Your task to perform on an android device: turn off javascript in the chrome app Image 0: 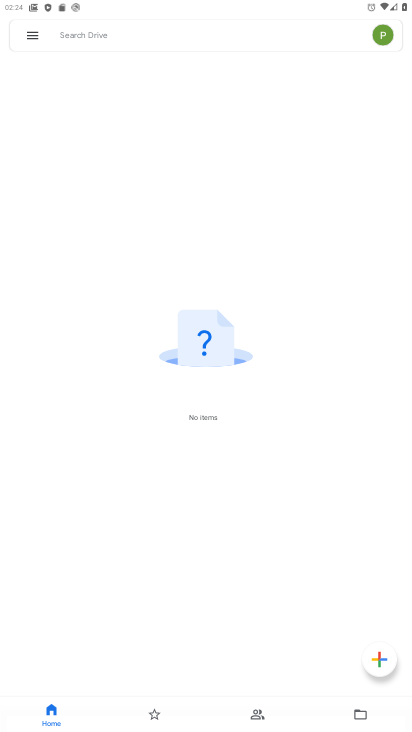
Step 0: press home button
Your task to perform on an android device: turn off javascript in the chrome app Image 1: 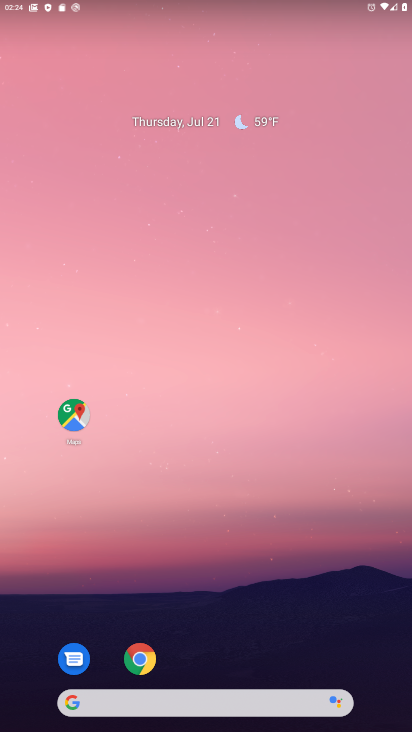
Step 1: drag from (276, 611) to (271, 91)
Your task to perform on an android device: turn off javascript in the chrome app Image 2: 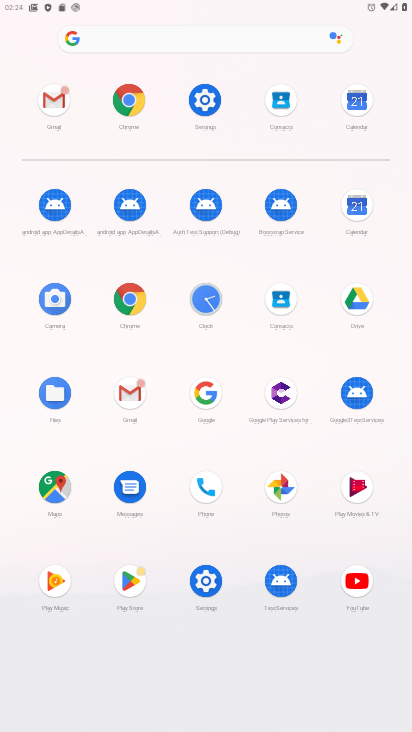
Step 2: click (127, 103)
Your task to perform on an android device: turn off javascript in the chrome app Image 3: 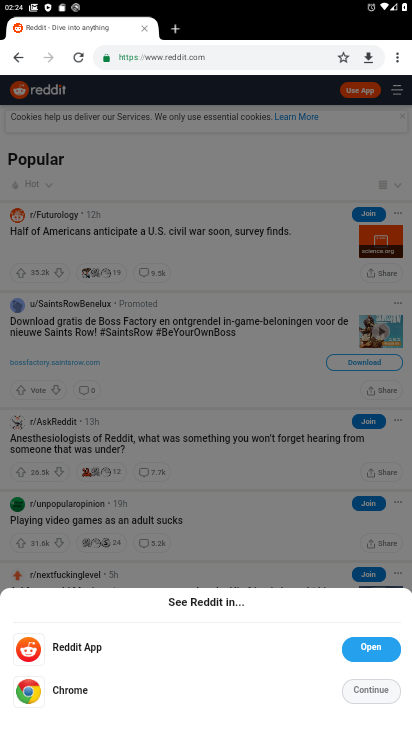
Step 3: drag from (396, 51) to (273, 388)
Your task to perform on an android device: turn off javascript in the chrome app Image 4: 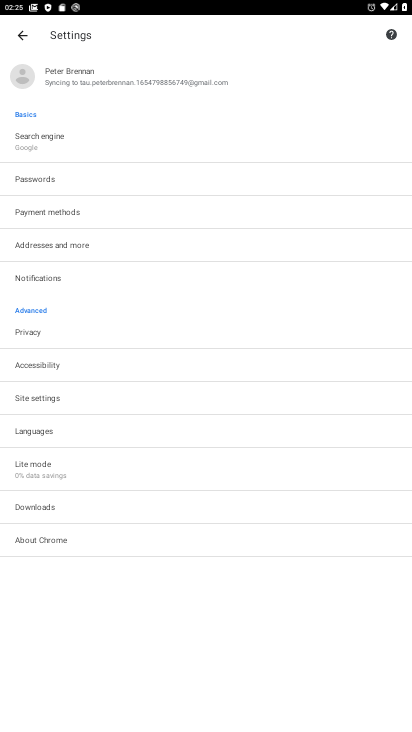
Step 4: click (76, 397)
Your task to perform on an android device: turn off javascript in the chrome app Image 5: 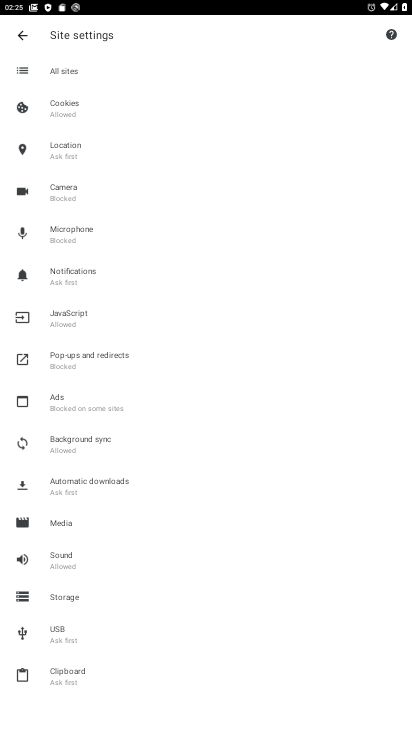
Step 5: click (75, 308)
Your task to perform on an android device: turn off javascript in the chrome app Image 6: 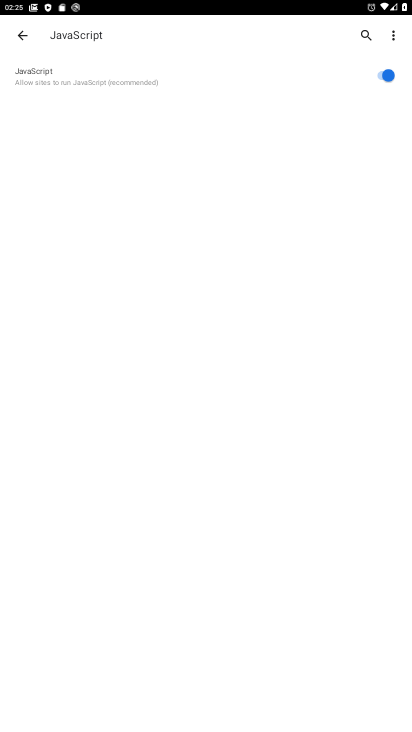
Step 6: click (381, 73)
Your task to perform on an android device: turn off javascript in the chrome app Image 7: 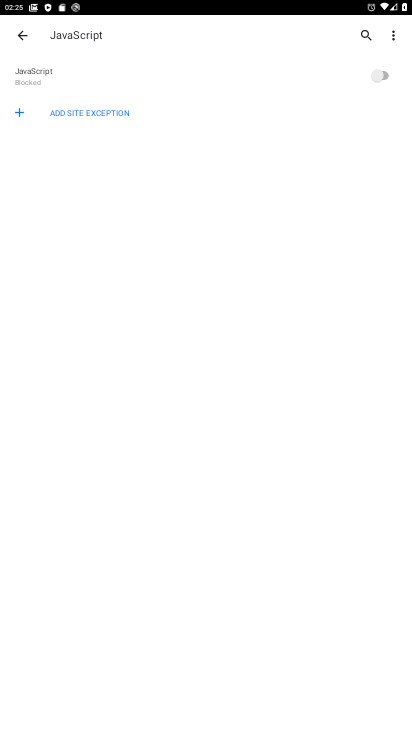
Step 7: task complete